Your task to perform on an android device: turn pop-ups off in chrome Image 0: 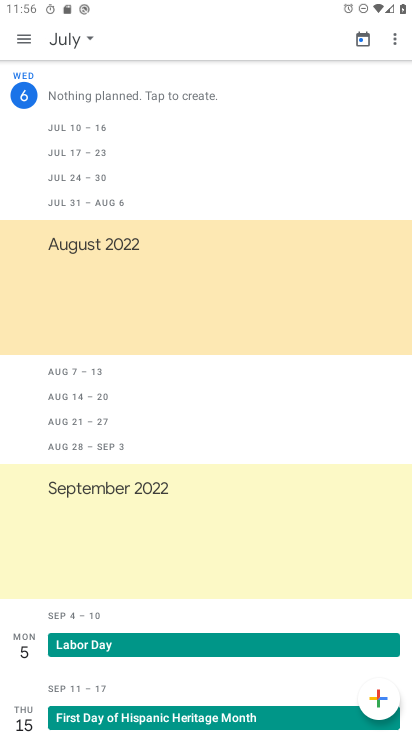
Step 0: press home button
Your task to perform on an android device: turn pop-ups off in chrome Image 1: 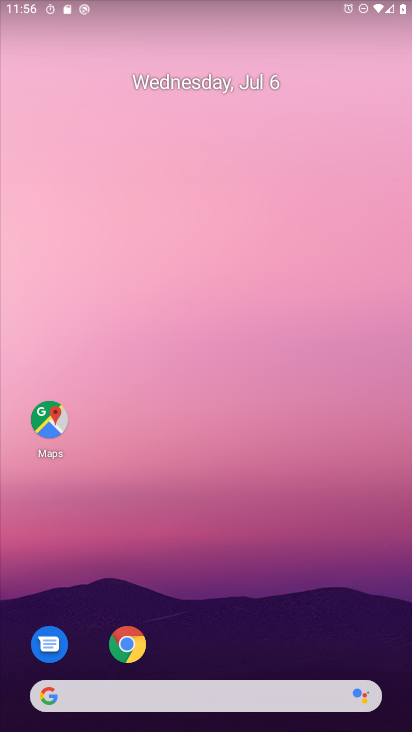
Step 1: drag from (204, 658) to (208, 227)
Your task to perform on an android device: turn pop-ups off in chrome Image 2: 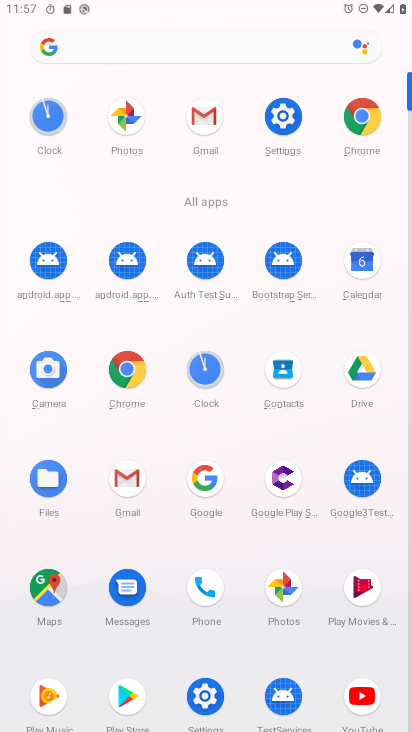
Step 2: click (366, 112)
Your task to perform on an android device: turn pop-ups off in chrome Image 3: 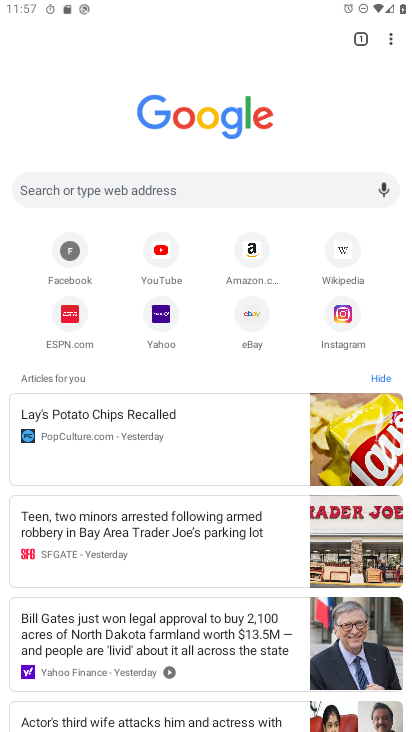
Step 3: click (382, 40)
Your task to perform on an android device: turn pop-ups off in chrome Image 4: 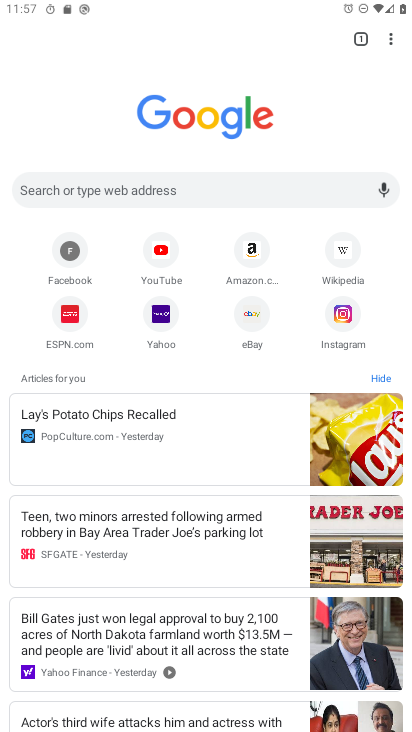
Step 4: click (385, 37)
Your task to perform on an android device: turn pop-ups off in chrome Image 5: 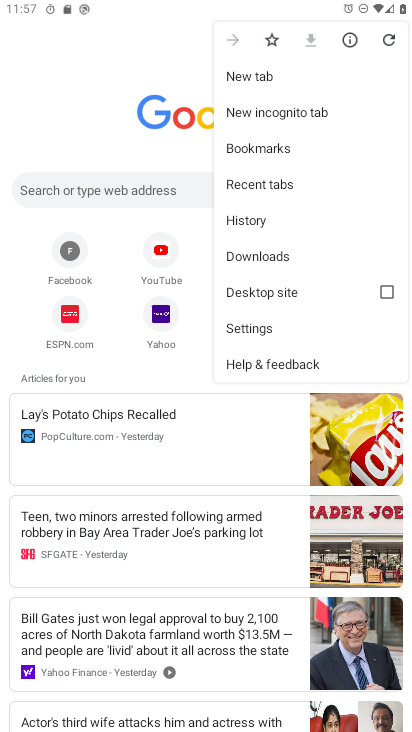
Step 5: click (274, 328)
Your task to perform on an android device: turn pop-ups off in chrome Image 6: 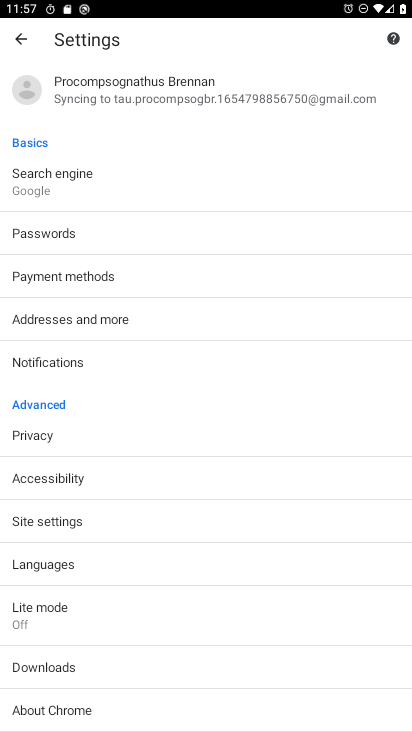
Step 6: click (78, 517)
Your task to perform on an android device: turn pop-ups off in chrome Image 7: 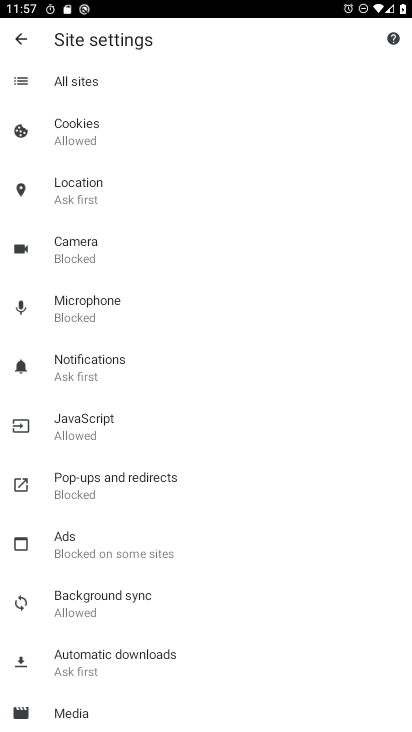
Step 7: click (113, 498)
Your task to perform on an android device: turn pop-ups off in chrome Image 8: 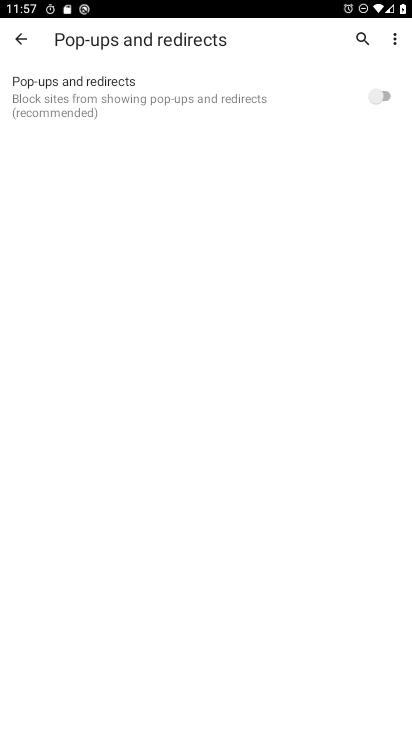
Step 8: task complete